Your task to perform on an android device: Go to notification settings Image 0: 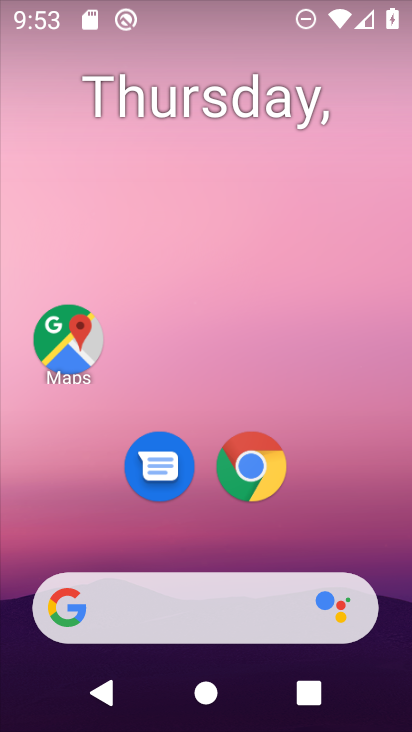
Step 0: drag from (256, 627) to (260, 14)
Your task to perform on an android device: Go to notification settings Image 1: 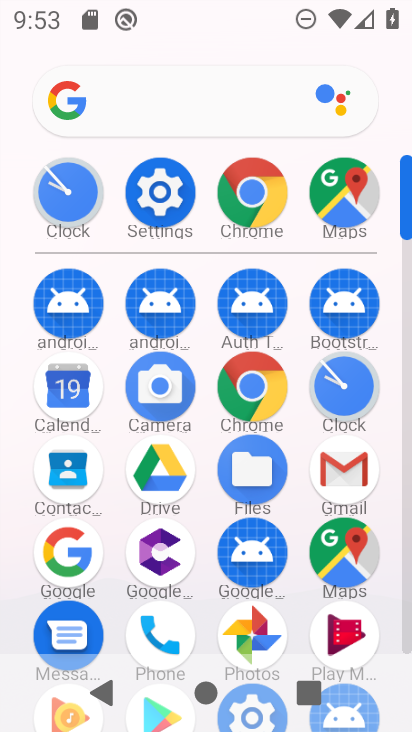
Step 1: click (175, 204)
Your task to perform on an android device: Go to notification settings Image 2: 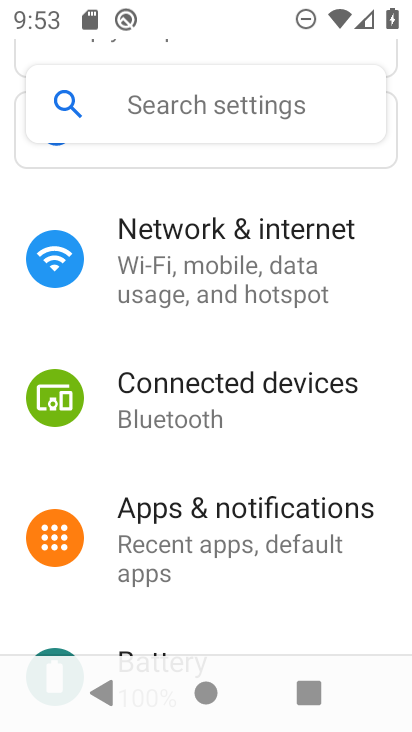
Step 2: click (204, 569)
Your task to perform on an android device: Go to notification settings Image 3: 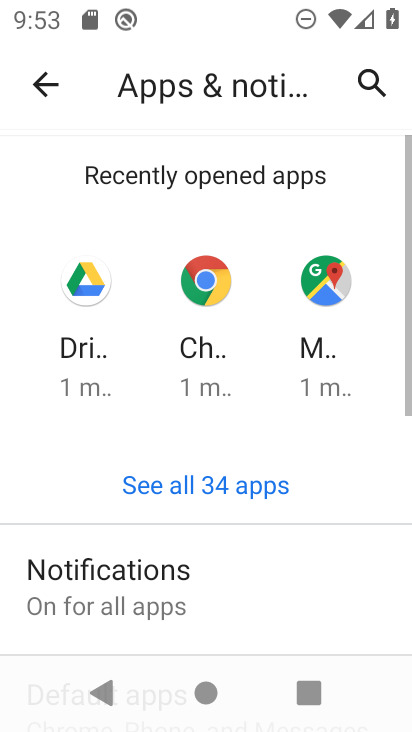
Step 3: task complete